Your task to perform on an android device: check android version Image 0: 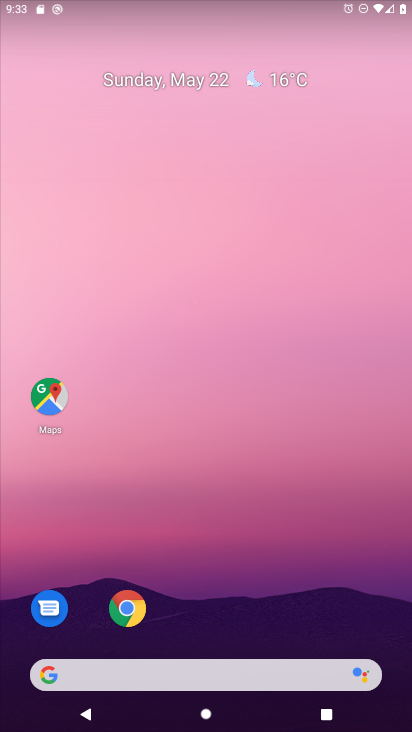
Step 0: drag from (239, 728) to (182, 100)
Your task to perform on an android device: check android version Image 1: 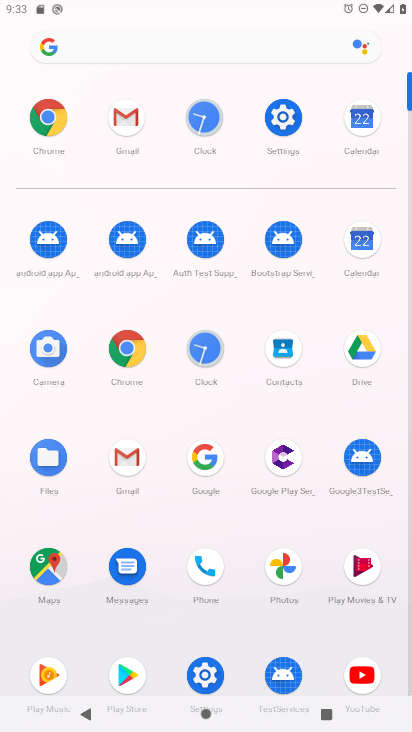
Step 1: click (281, 118)
Your task to perform on an android device: check android version Image 2: 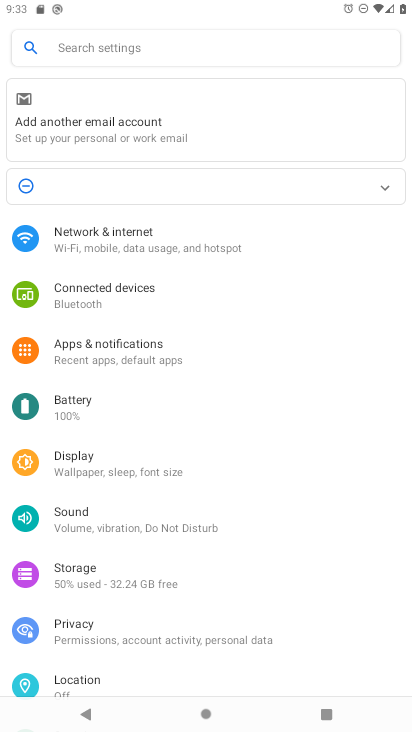
Step 2: drag from (164, 661) to (155, 232)
Your task to perform on an android device: check android version Image 3: 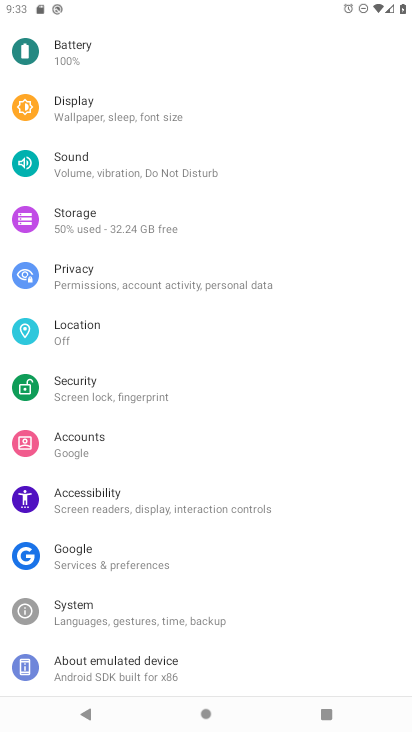
Step 3: drag from (127, 664) to (127, 238)
Your task to perform on an android device: check android version Image 4: 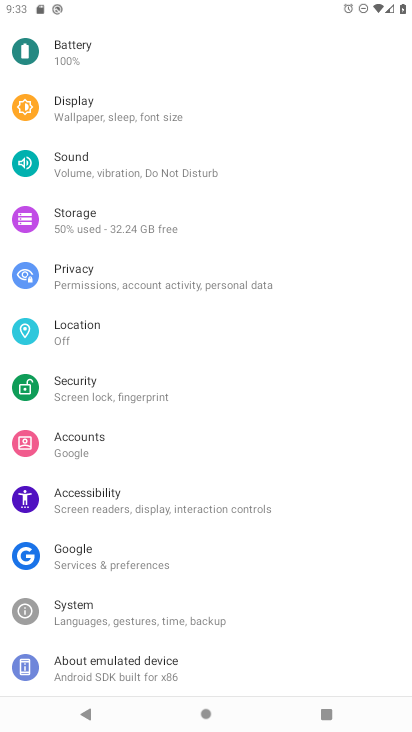
Step 4: click (100, 670)
Your task to perform on an android device: check android version Image 5: 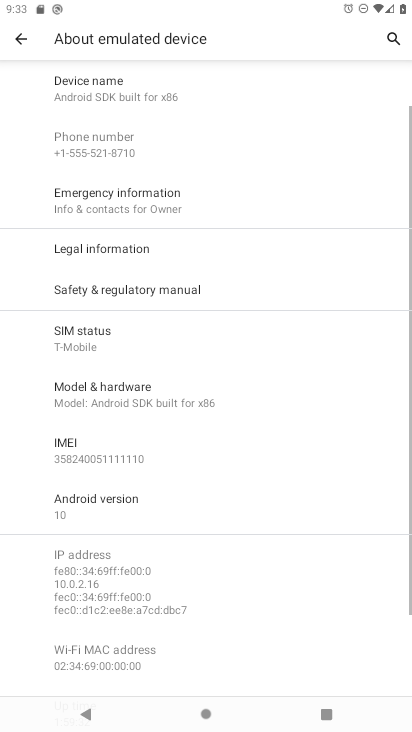
Step 5: click (87, 501)
Your task to perform on an android device: check android version Image 6: 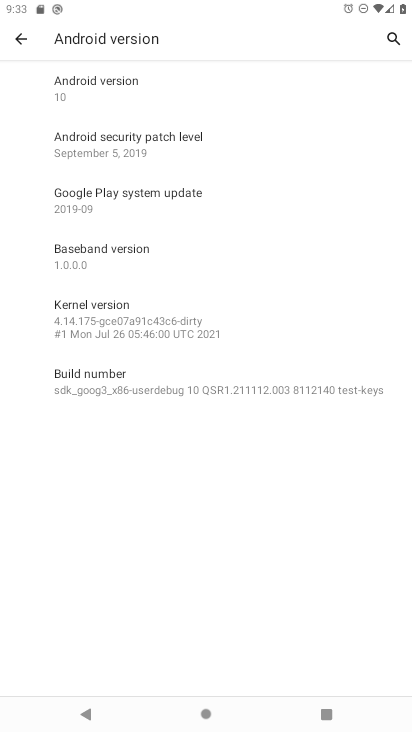
Step 6: task complete